Your task to perform on an android device: Open wifi settings Image 0: 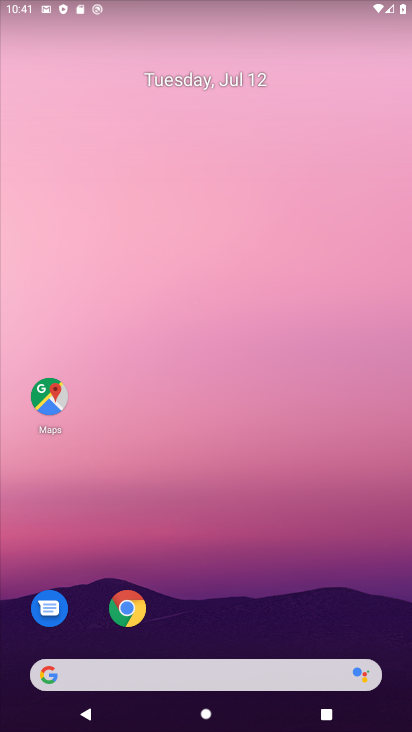
Step 0: drag from (216, 11) to (107, 726)
Your task to perform on an android device: Open wifi settings Image 1: 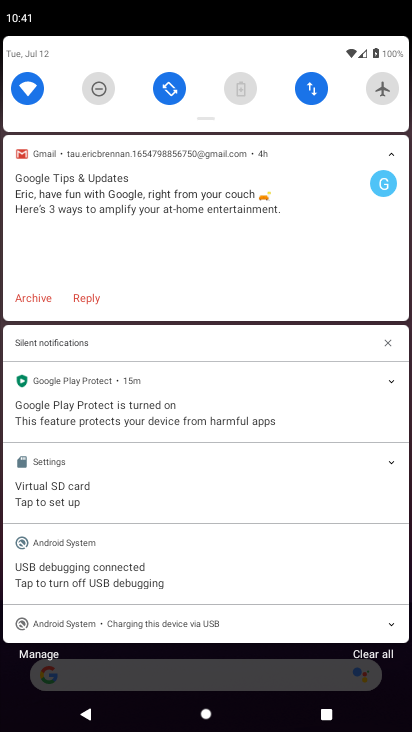
Step 1: click (32, 75)
Your task to perform on an android device: Open wifi settings Image 2: 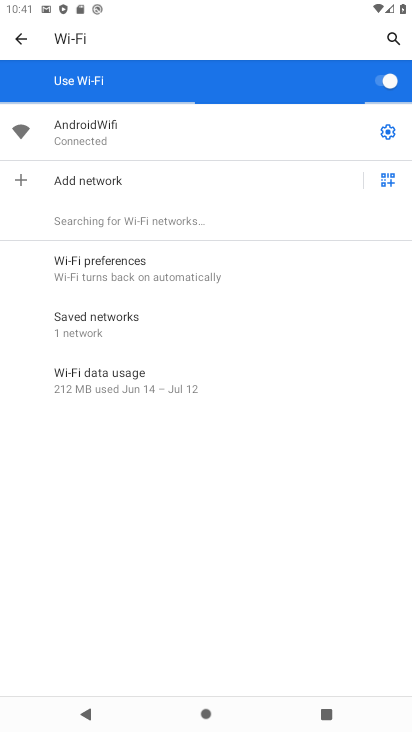
Step 2: task complete